Your task to perform on an android device: Go to Wikipedia Image 0: 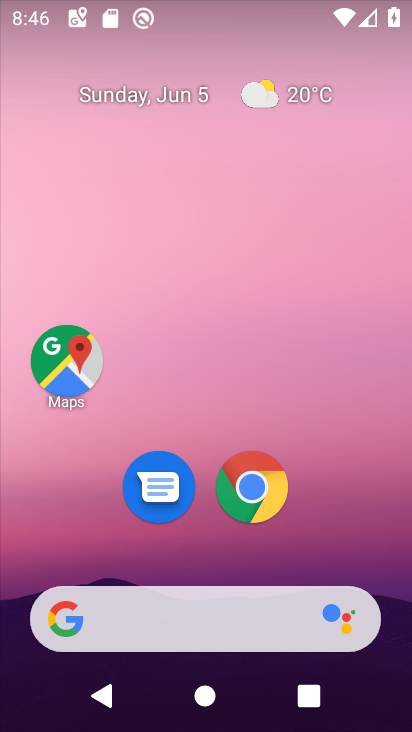
Step 0: click (243, 474)
Your task to perform on an android device: Go to Wikipedia Image 1: 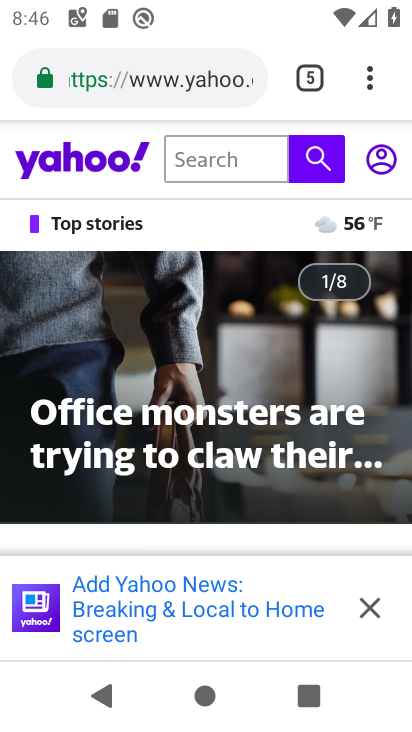
Step 1: click (368, 80)
Your task to perform on an android device: Go to Wikipedia Image 2: 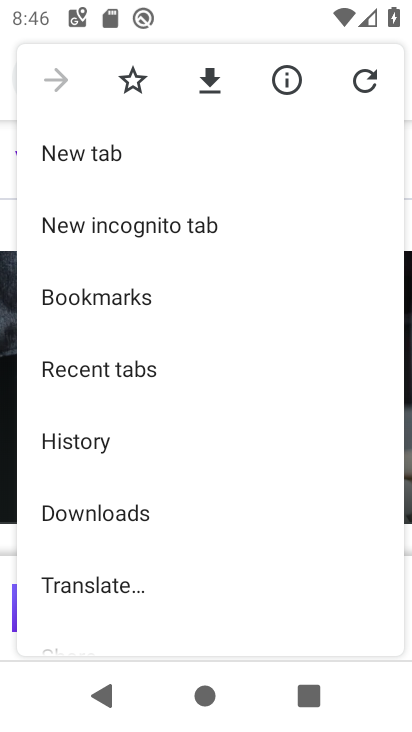
Step 2: click (85, 149)
Your task to perform on an android device: Go to Wikipedia Image 3: 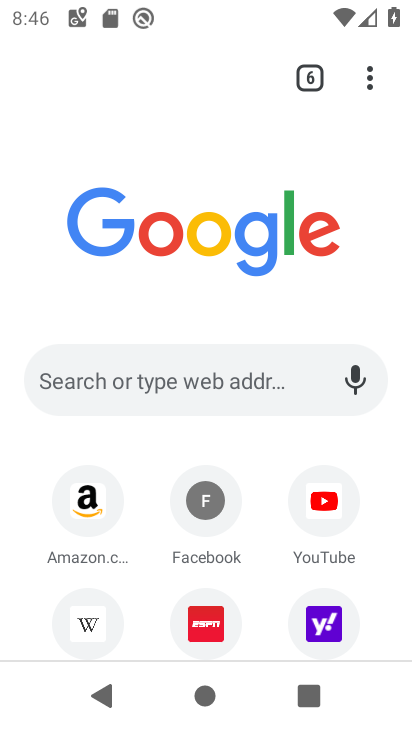
Step 3: click (86, 611)
Your task to perform on an android device: Go to Wikipedia Image 4: 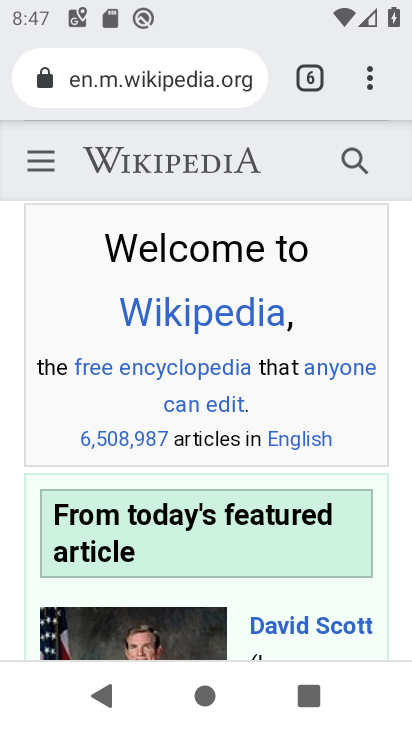
Step 4: task complete